Your task to perform on an android device: turn smart compose on in the gmail app Image 0: 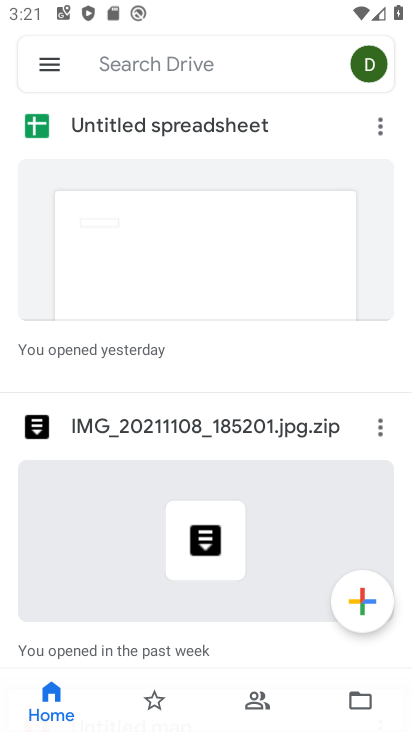
Step 0: press home button
Your task to perform on an android device: turn smart compose on in the gmail app Image 1: 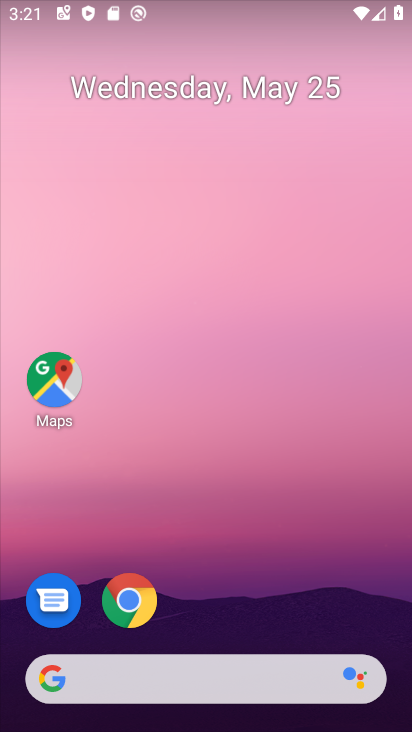
Step 1: drag from (5, 636) to (220, 210)
Your task to perform on an android device: turn smart compose on in the gmail app Image 2: 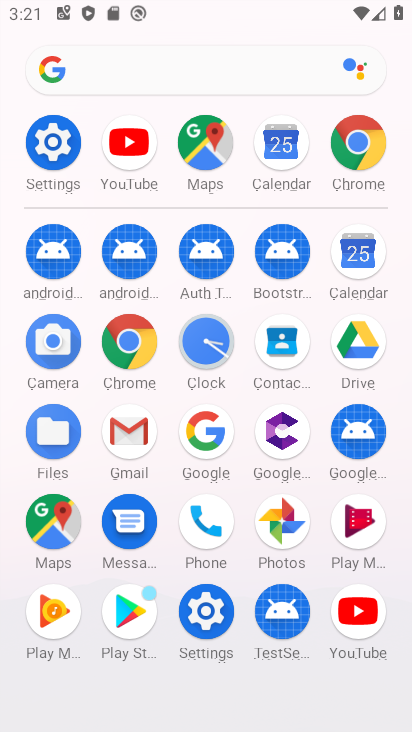
Step 2: click (141, 442)
Your task to perform on an android device: turn smart compose on in the gmail app Image 3: 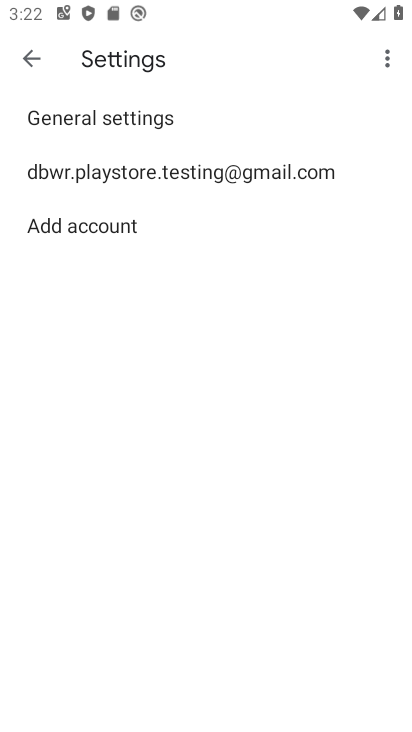
Step 3: press back button
Your task to perform on an android device: turn smart compose on in the gmail app Image 4: 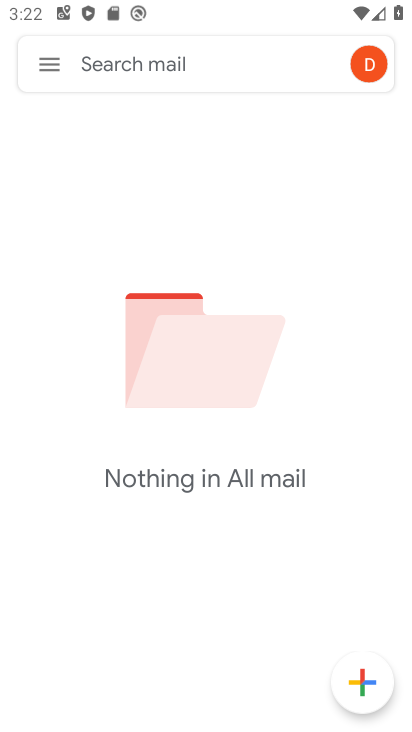
Step 4: click (50, 54)
Your task to perform on an android device: turn smart compose on in the gmail app Image 5: 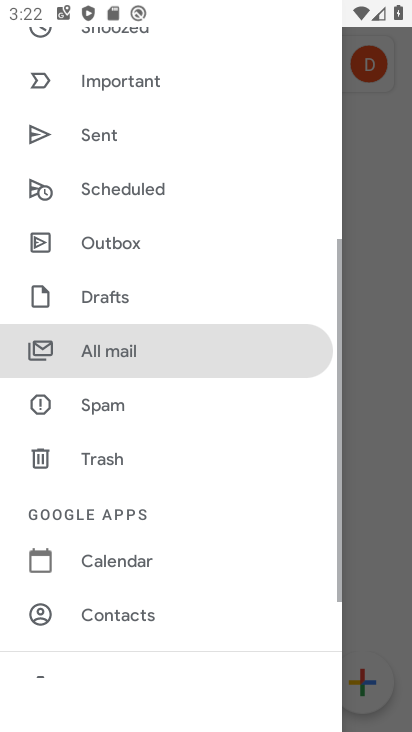
Step 5: drag from (92, 590) to (223, 144)
Your task to perform on an android device: turn smart compose on in the gmail app Image 6: 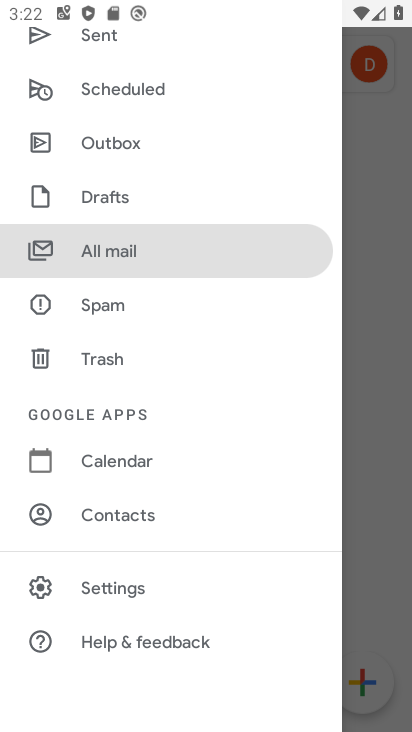
Step 6: click (110, 587)
Your task to perform on an android device: turn smart compose on in the gmail app Image 7: 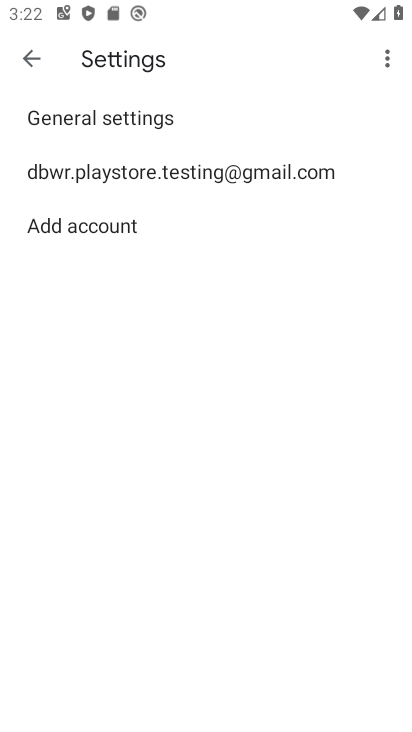
Step 7: click (143, 168)
Your task to perform on an android device: turn smart compose on in the gmail app Image 8: 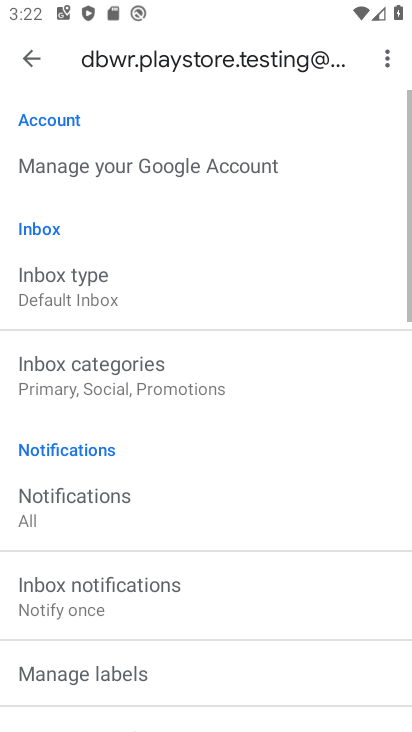
Step 8: drag from (0, 523) to (235, 189)
Your task to perform on an android device: turn smart compose on in the gmail app Image 9: 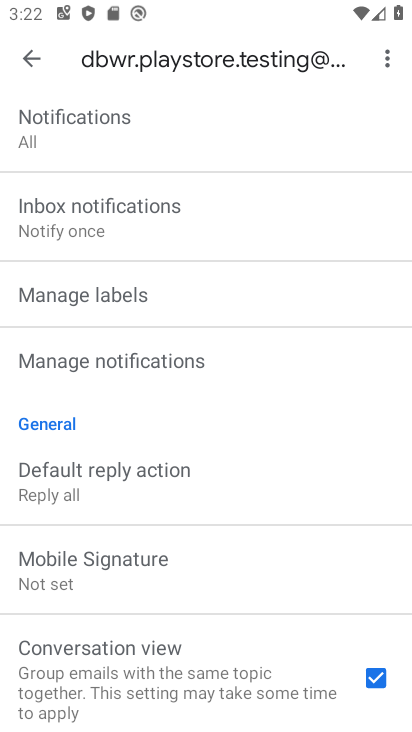
Step 9: drag from (91, 665) to (195, 184)
Your task to perform on an android device: turn smart compose on in the gmail app Image 10: 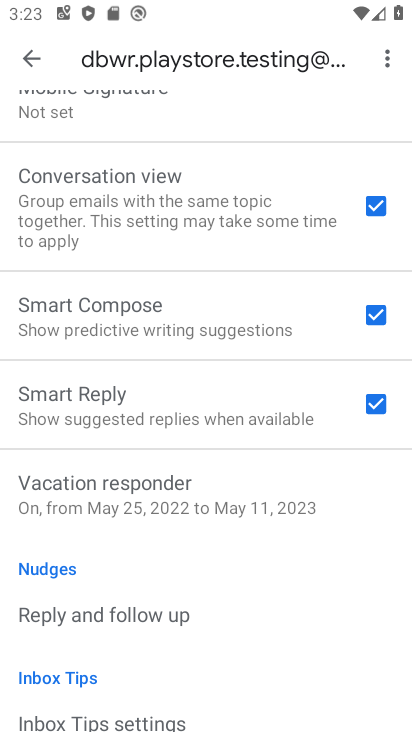
Step 10: click (382, 317)
Your task to perform on an android device: turn smart compose on in the gmail app Image 11: 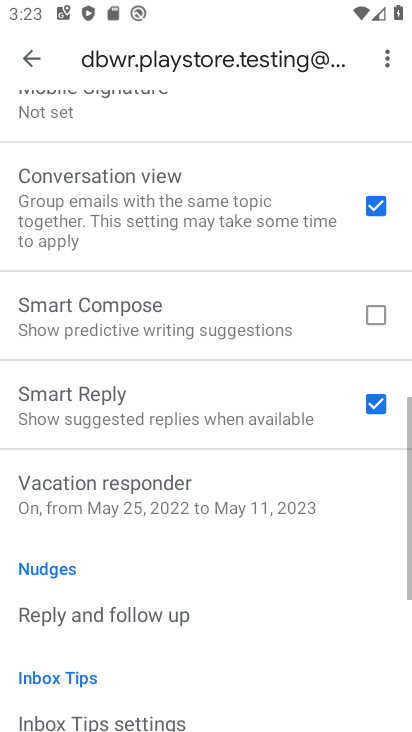
Step 11: click (382, 317)
Your task to perform on an android device: turn smart compose on in the gmail app Image 12: 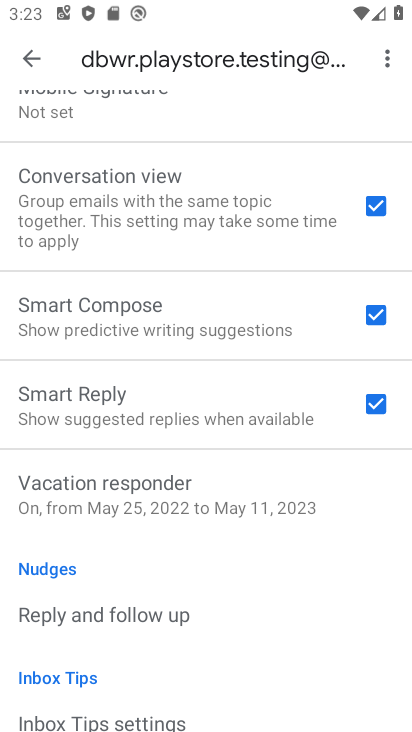
Step 12: task complete